Your task to perform on an android device: clear all cookies in the chrome app Image 0: 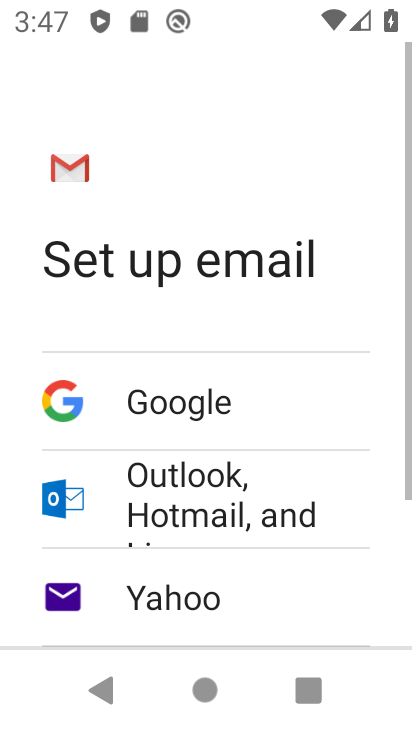
Step 0: press back button
Your task to perform on an android device: clear all cookies in the chrome app Image 1: 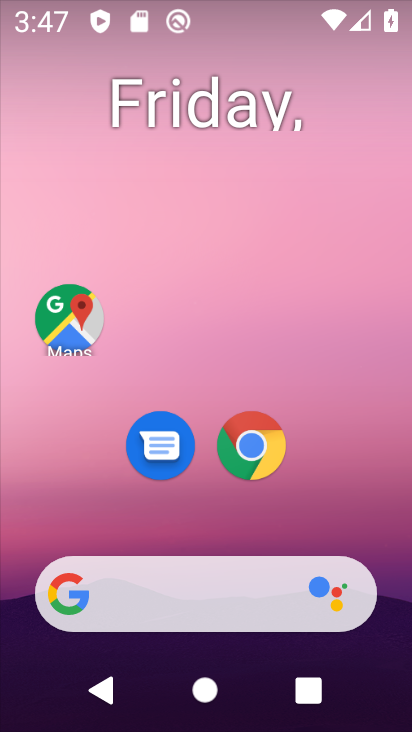
Step 1: drag from (391, 648) to (347, 7)
Your task to perform on an android device: clear all cookies in the chrome app Image 2: 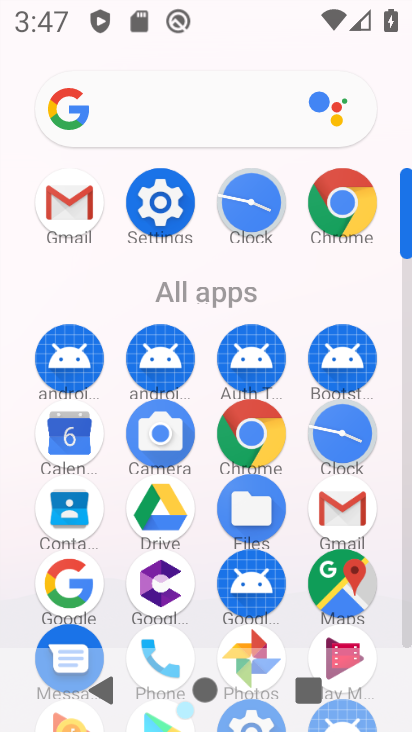
Step 2: click (345, 199)
Your task to perform on an android device: clear all cookies in the chrome app Image 3: 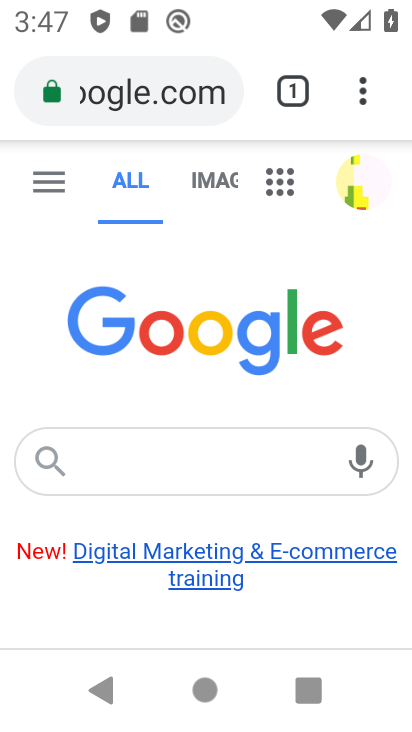
Step 3: drag from (364, 90) to (143, 468)
Your task to perform on an android device: clear all cookies in the chrome app Image 4: 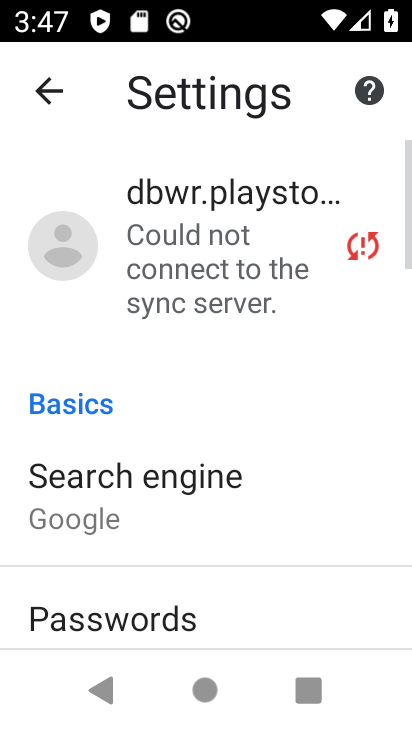
Step 4: drag from (242, 529) to (229, 136)
Your task to perform on an android device: clear all cookies in the chrome app Image 5: 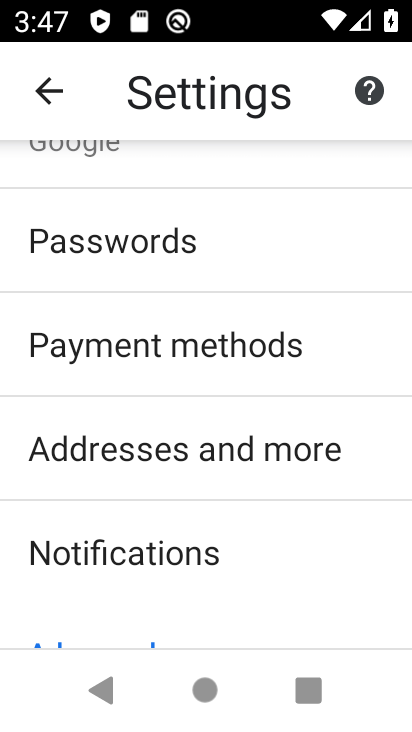
Step 5: drag from (239, 570) to (240, 173)
Your task to perform on an android device: clear all cookies in the chrome app Image 6: 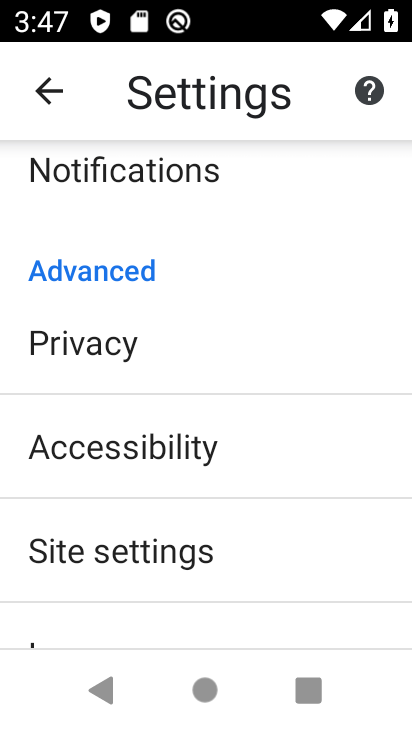
Step 6: drag from (248, 572) to (236, 150)
Your task to perform on an android device: clear all cookies in the chrome app Image 7: 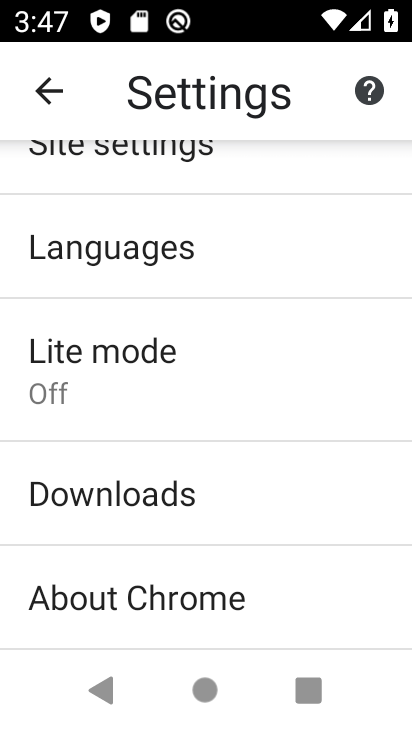
Step 7: drag from (237, 593) to (234, 200)
Your task to perform on an android device: clear all cookies in the chrome app Image 8: 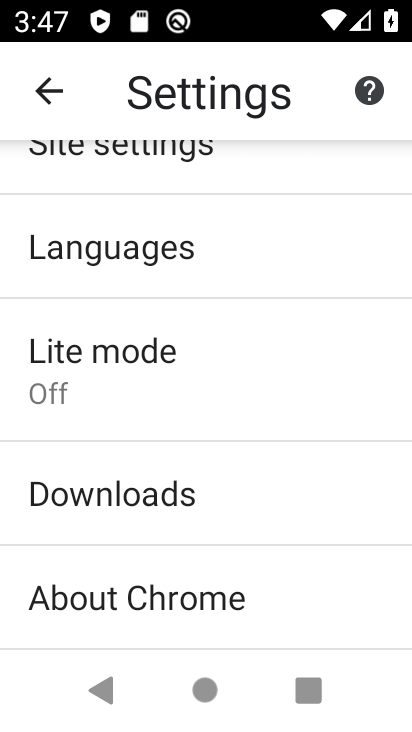
Step 8: drag from (241, 214) to (264, 527)
Your task to perform on an android device: clear all cookies in the chrome app Image 9: 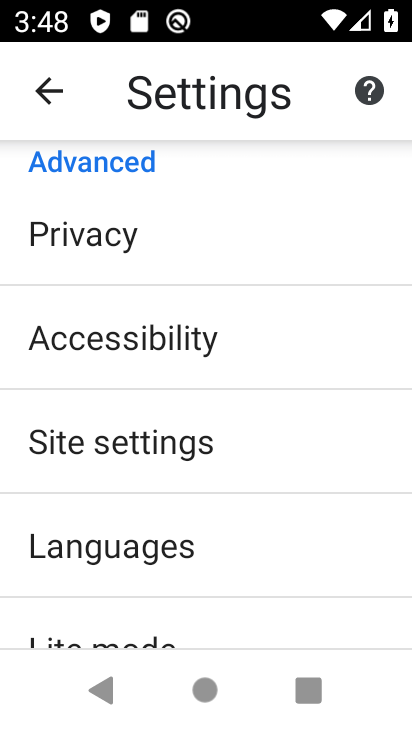
Step 9: click (183, 457)
Your task to perform on an android device: clear all cookies in the chrome app Image 10: 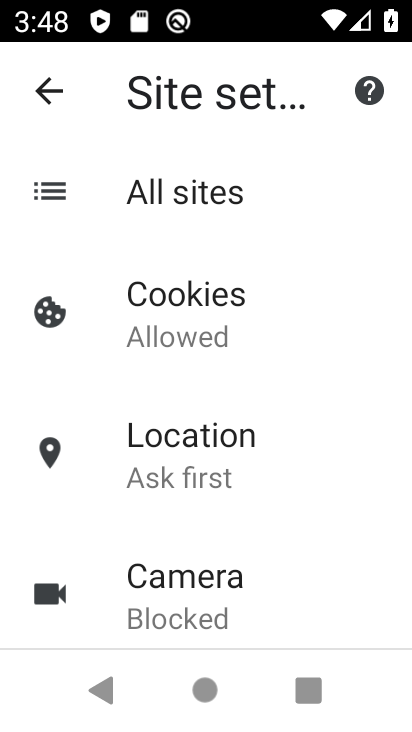
Step 10: drag from (286, 516) to (271, 155)
Your task to perform on an android device: clear all cookies in the chrome app Image 11: 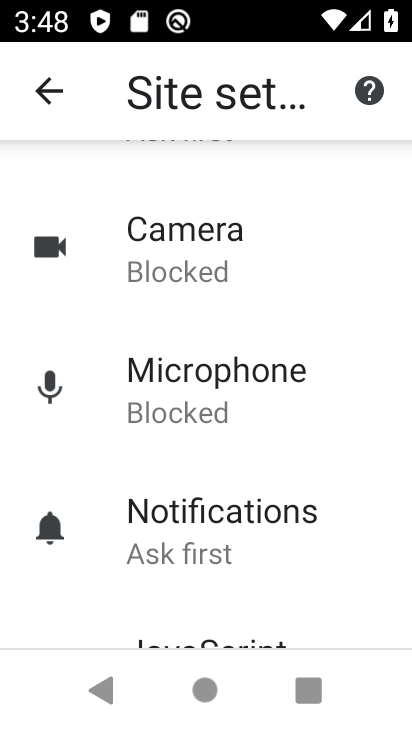
Step 11: drag from (264, 617) to (264, 147)
Your task to perform on an android device: clear all cookies in the chrome app Image 12: 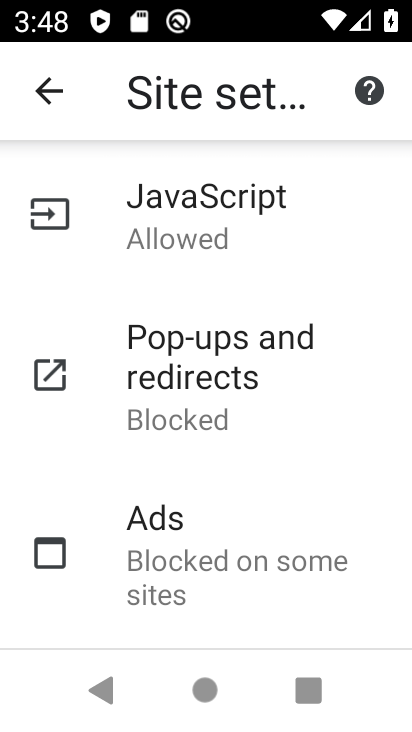
Step 12: drag from (265, 537) to (267, 115)
Your task to perform on an android device: clear all cookies in the chrome app Image 13: 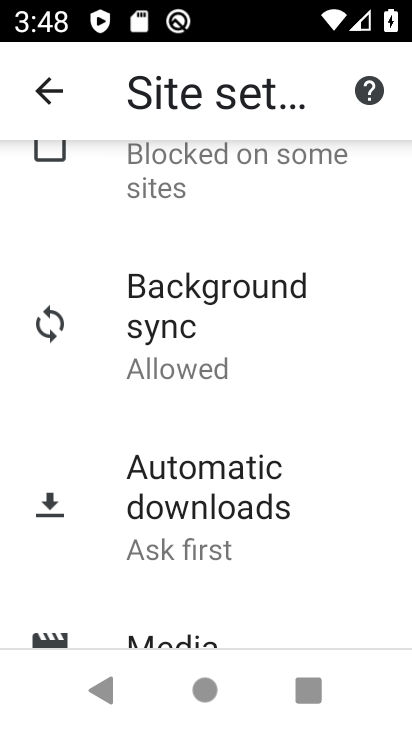
Step 13: click (49, 93)
Your task to perform on an android device: clear all cookies in the chrome app Image 14: 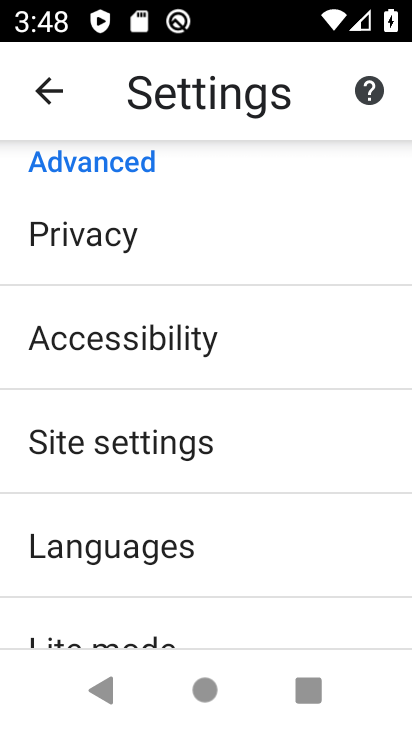
Step 14: click (181, 251)
Your task to perform on an android device: clear all cookies in the chrome app Image 15: 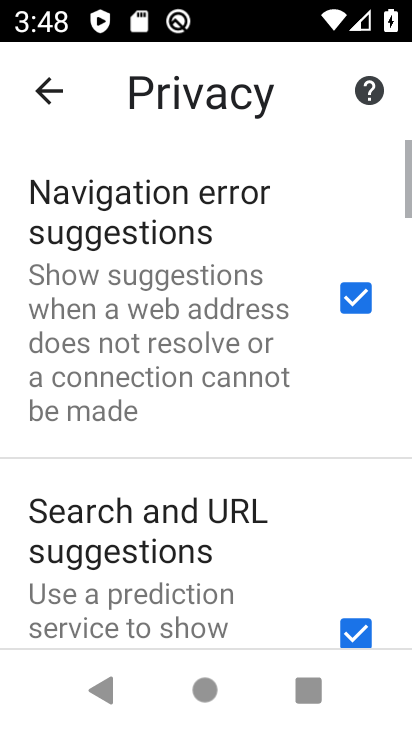
Step 15: drag from (211, 562) to (235, 99)
Your task to perform on an android device: clear all cookies in the chrome app Image 16: 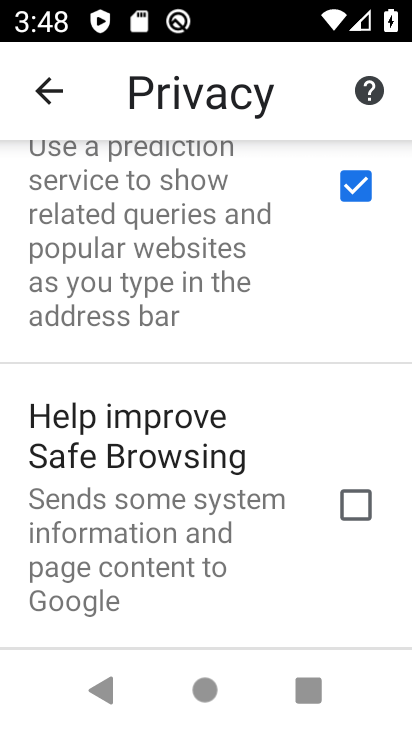
Step 16: drag from (207, 578) to (222, 90)
Your task to perform on an android device: clear all cookies in the chrome app Image 17: 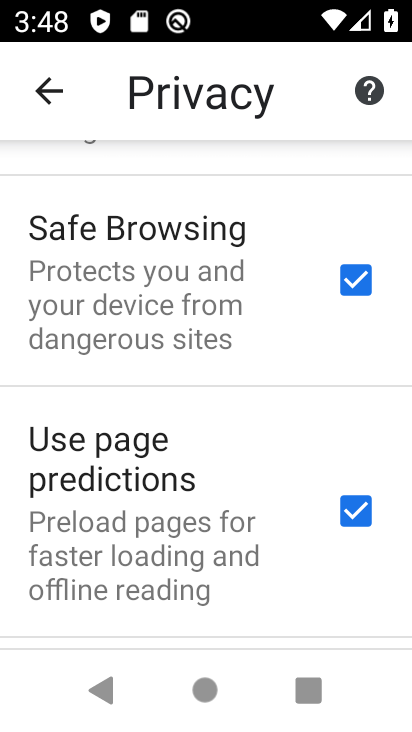
Step 17: drag from (221, 549) to (230, 127)
Your task to perform on an android device: clear all cookies in the chrome app Image 18: 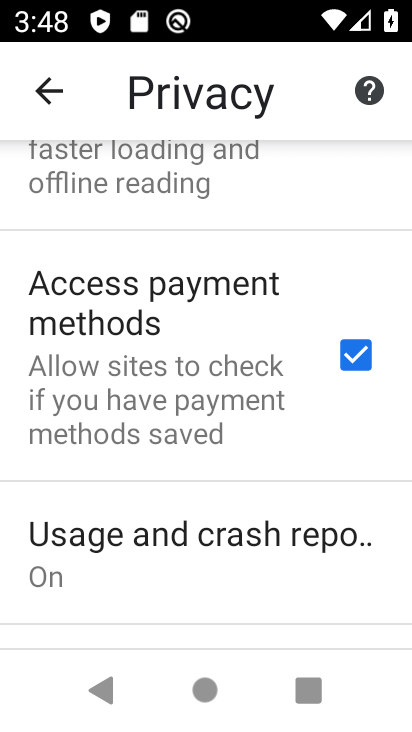
Step 18: drag from (224, 571) to (239, 178)
Your task to perform on an android device: clear all cookies in the chrome app Image 19: 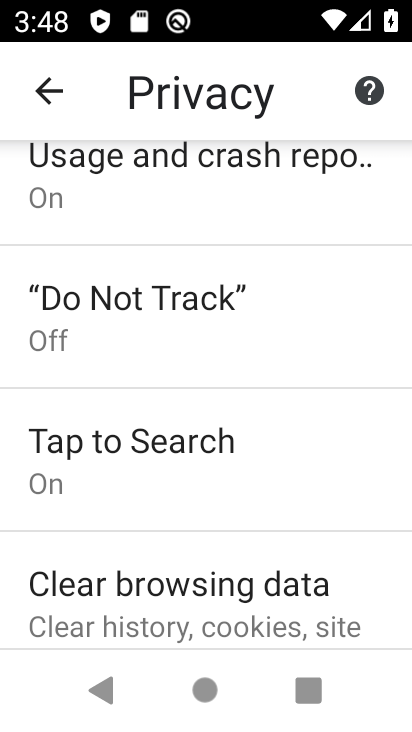
Step 19: drag from (276, 549) to (276, 143)
Your task to perform on an android device: clear all cookies in the chrome app Image 20: 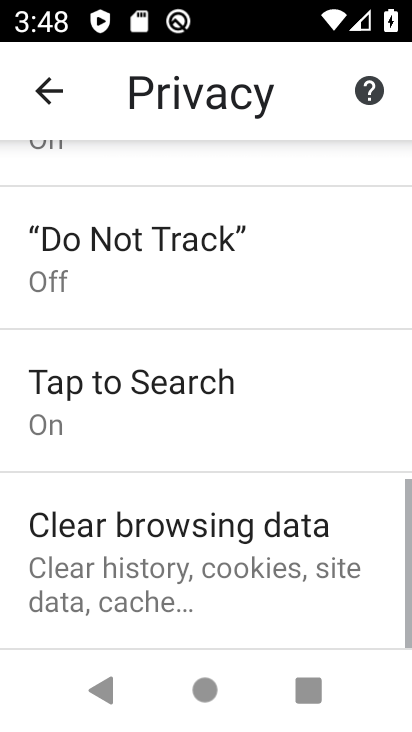
Step 20: click (213, 536)
Your task to perform on an android device: clear all cookies in the chrome app Image 21: 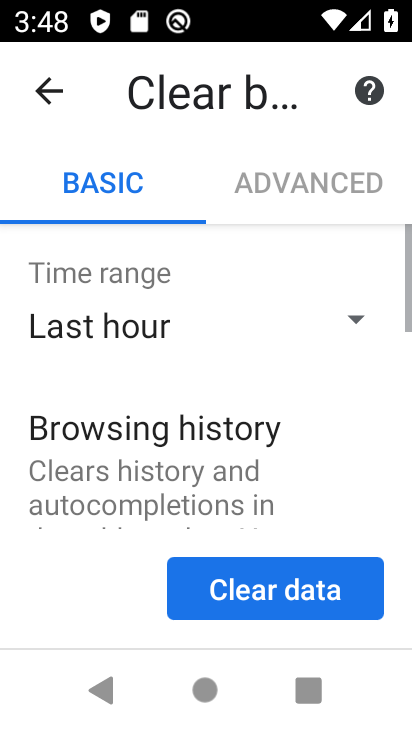
Step 21: drag from (127, 499) to (164, 225)
Your task to perform on an android device: clear all cookies in the chrome app Image 22: 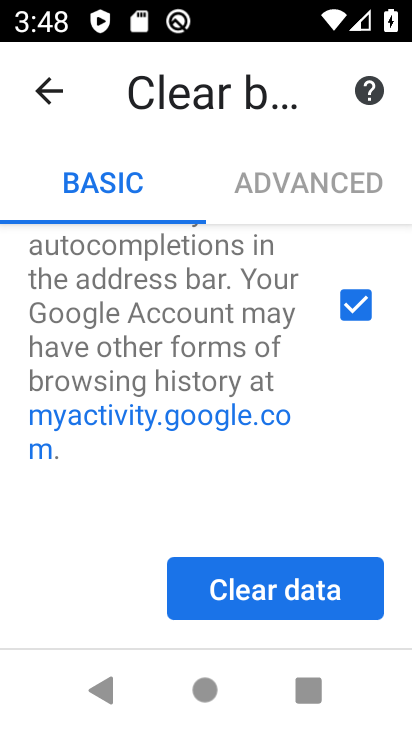
Step 22: drag from (165, 502) to (204, 204)
Your task to perform on an android device: clear all cookies in the chrome app Image 23: 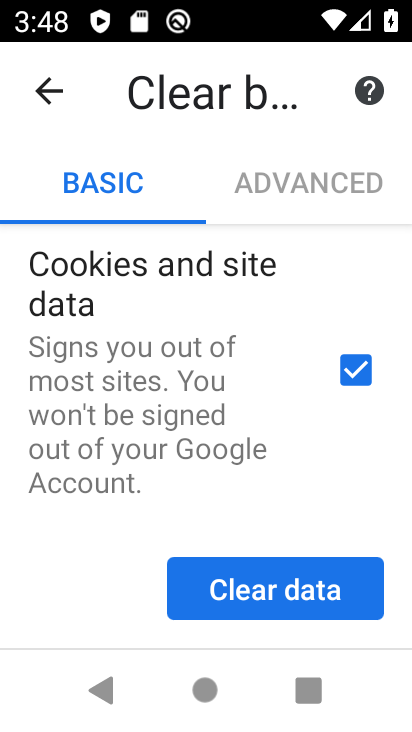
Step 23: drag from (174, 517) to (136, 606)
Your task to perform on an android device: clear all cookies in the chrome app Image 24: 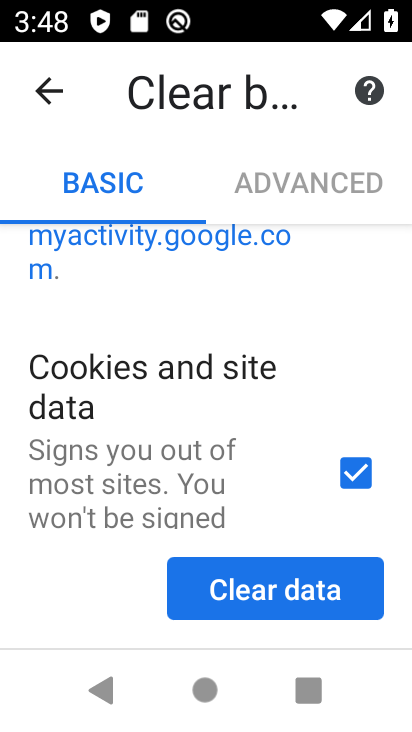
Step 24: drag from (278, 288) to (145, 519)
Your task to perform on an android device: clear all cookies in the chrome app Image 25: 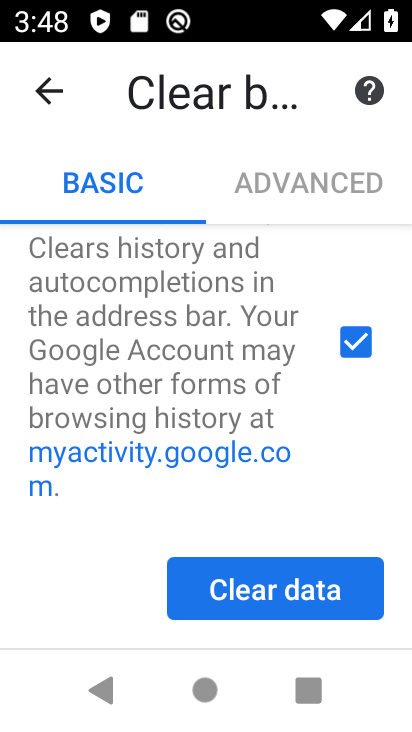
Step 25: click (343, 336)
Your task to perform on an android device: clear all cookies in the chrome app Image 26: 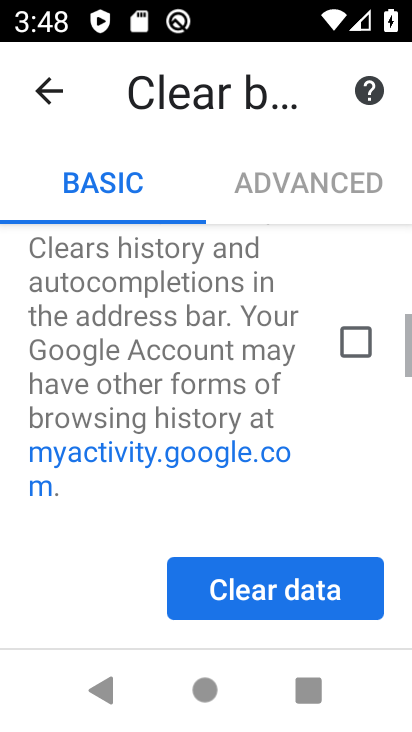
Step 26: drag from (133, 497) to (194, 187)
Your task to perform on an android device: clear all cookies in the chrome app Image 27: 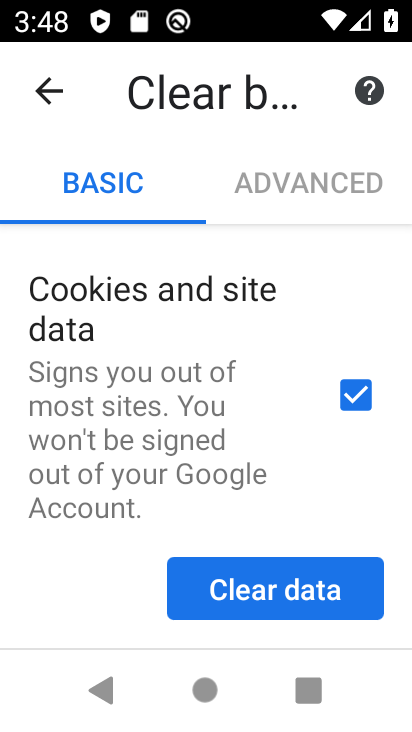
Step 27: drag from (133, 474) to (228, 141)
Your task to perform on an android device: clear all cookies in the chrome app Image 28: 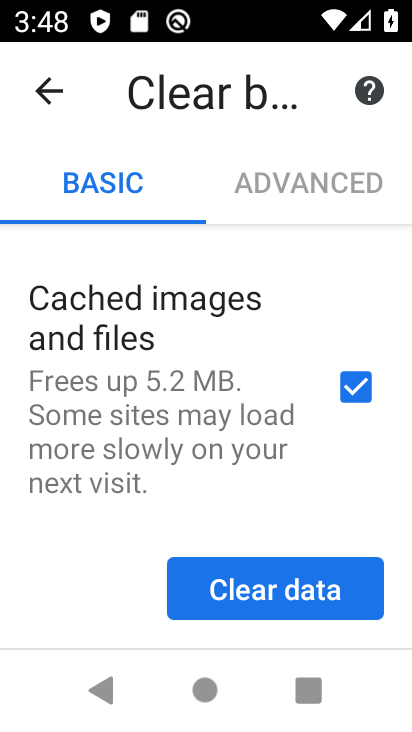
Step 28: click (359, 376)
Your task to perform on an android device: clear all cookies in the chrome app Image 29: 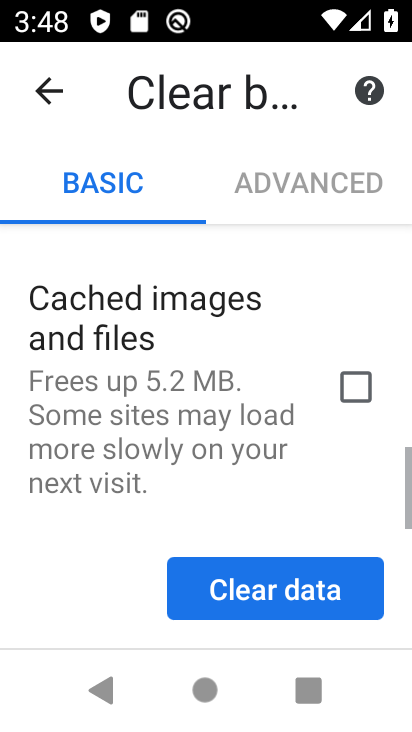
Step 29: click (308, 580)
Your task to perform on an android device: clear all cookies in the chrome app Image 30: 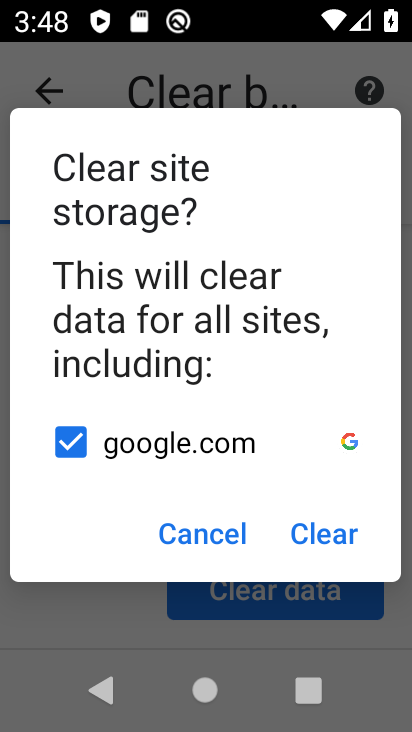
Step 30: click (317, 541)
Your task to perform on an android device: clear all cookies in the chrome app Image 31: 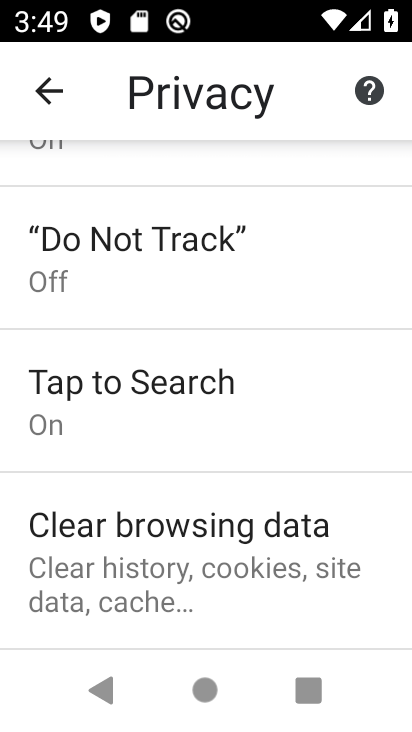
Step 31: task complete